Your task to perform on an android device: star an email in the gmail app Image 0: 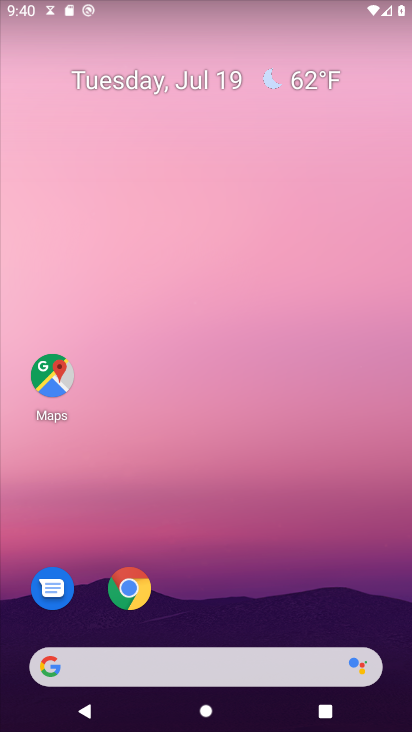
Step 0: drag from (219, 608) to (219, 190)
Your task to perform on an android device: star an email in the gmail app Image 1: 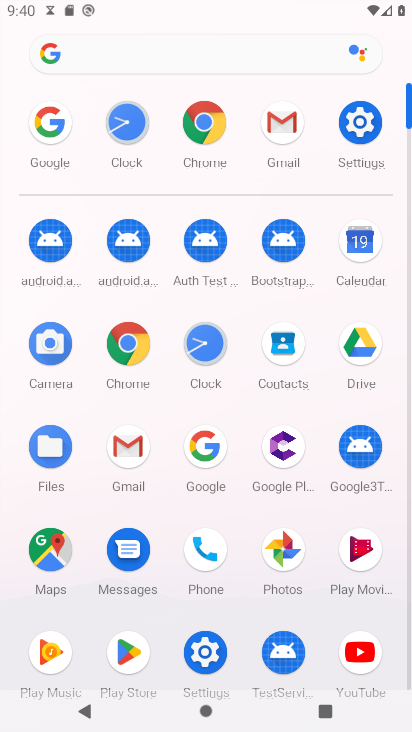
Step 1: click (294, 132)
Your task to perform on an android device: star an email in the gmail app Image 2: 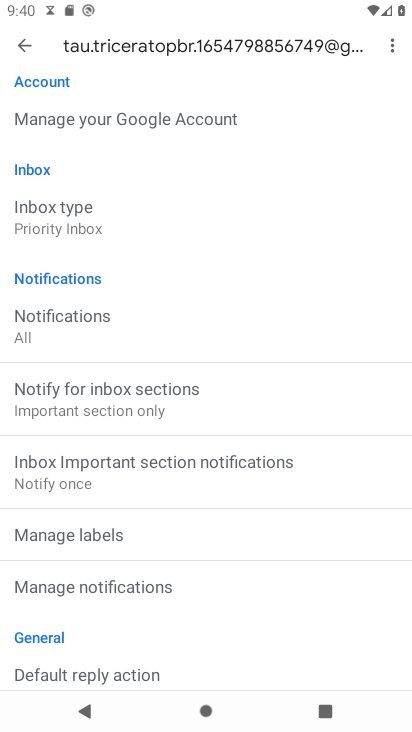
Step 2: click (27, 50)
Your task to perform on an android device: star an email in the gmail app Image 3: 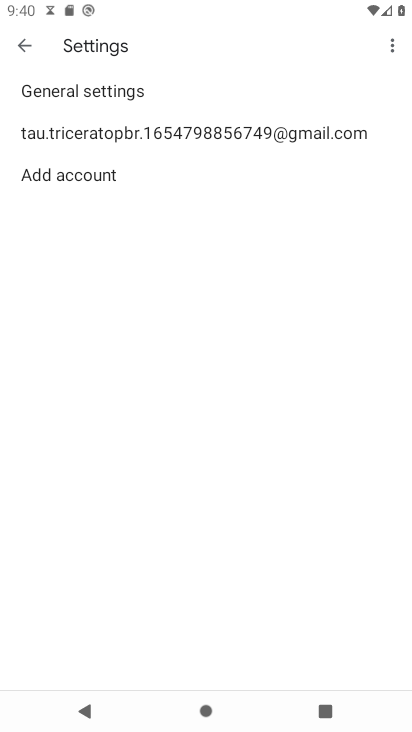
Step 3: click (28, 50)
Your task to perform on an android device: star an email in the gmail app Image 4: 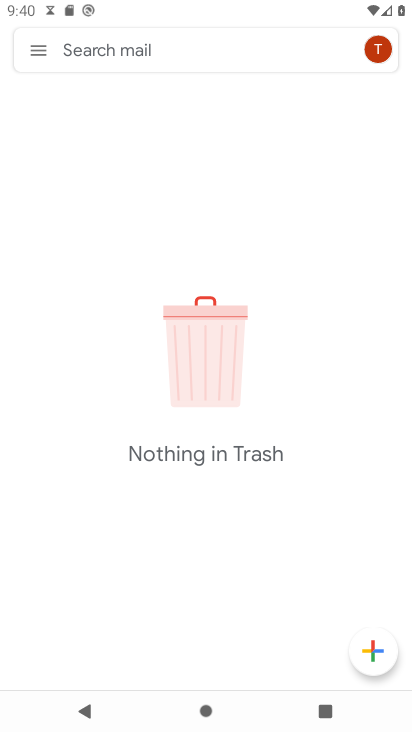
Step 4: click (32, 49)
Your task to perform on an android device: star an email in the gmail app Image 5: 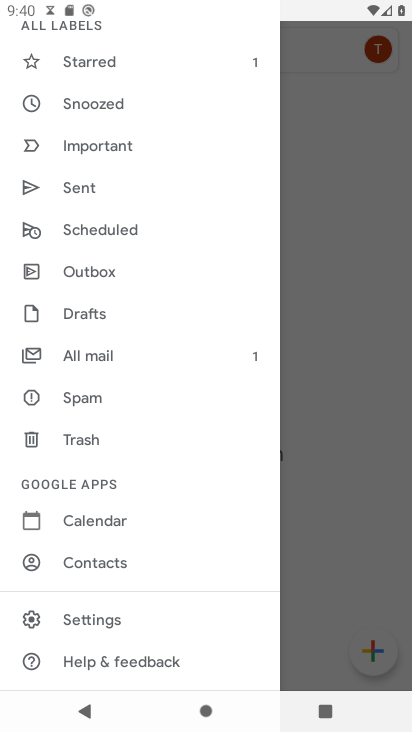
Step 5: click (69, 353)
Your task to perform on an android device: star an email in the gmail app Image 6: 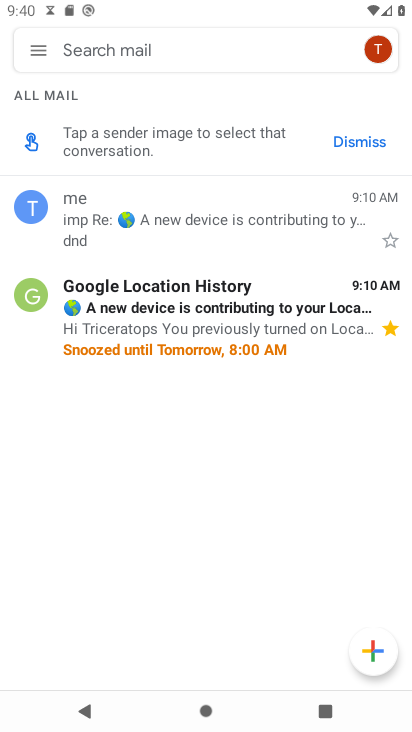
Step 6: click (393, 241)
Your task to perform on an android device: star an email in the gmail app Image 7: 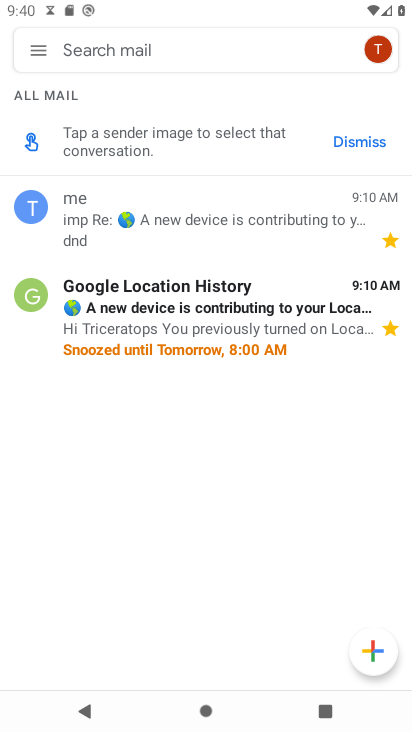
Step 7: task complete